Your task to perform on an android device: Go to sound settings Image 0: 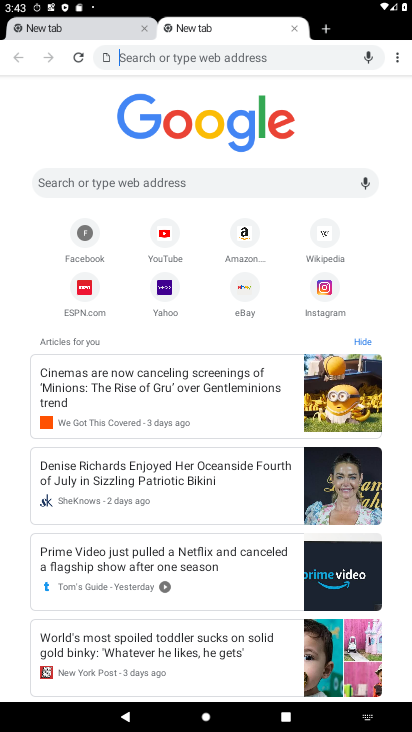
Step 0: press home button
Your task to perform on an android device: Go to sound settings Image 1: 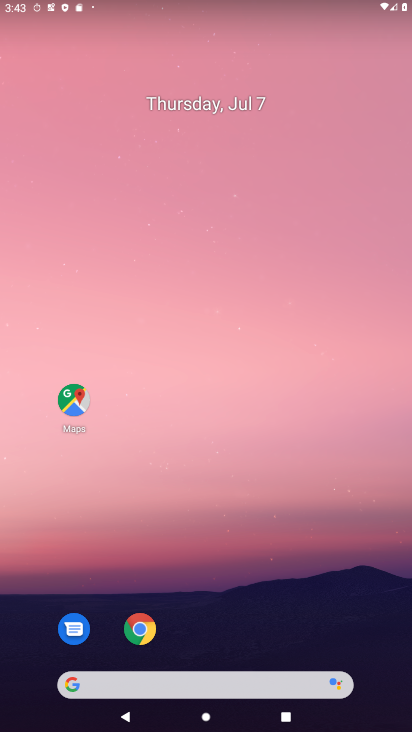
Step 1: drag from (199, 464) to (74, 39)
Your task to perform on an android device: Go to sound settings Image 2: 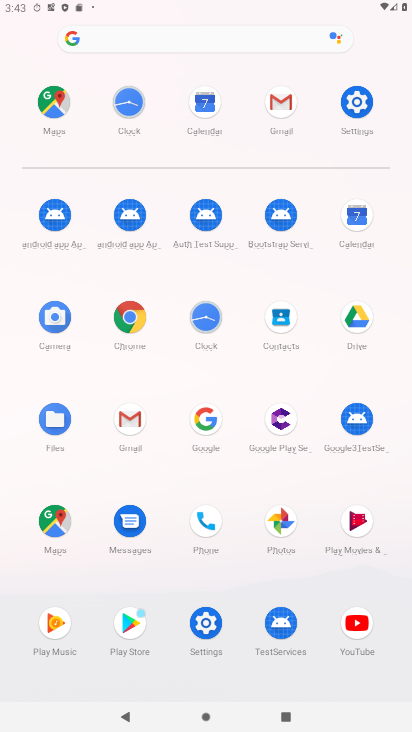
Step 2: click (353, 122)
Your task to perform on an android device: Go to sound settings Image 3: 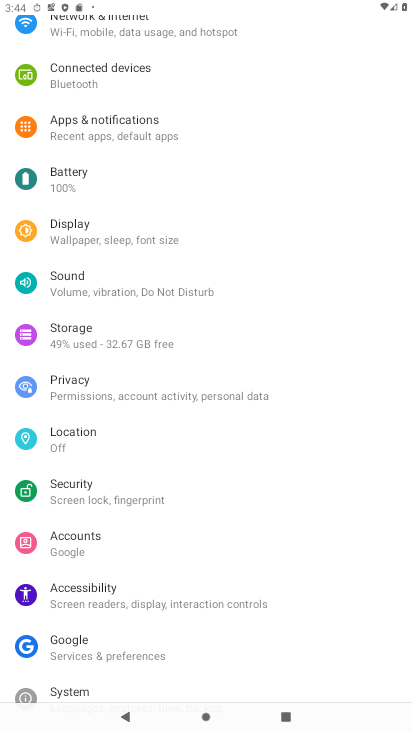
Step 3: click (113, 302)
Your task to perform on an android device: Go to sound settings Image 4: 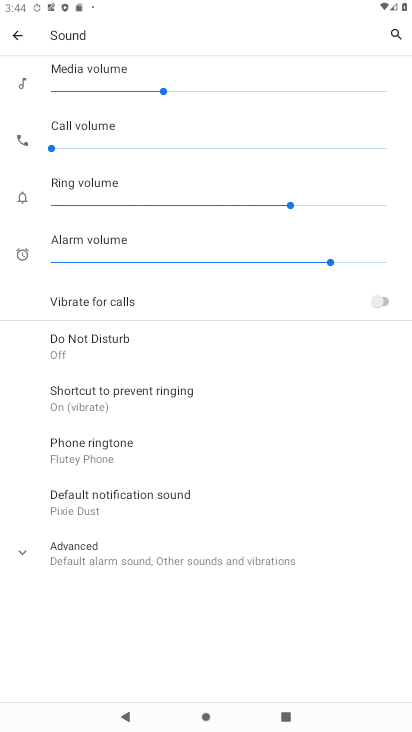
Step 4: task complete